Your task to perform on an android device: Open display settings Image 0: 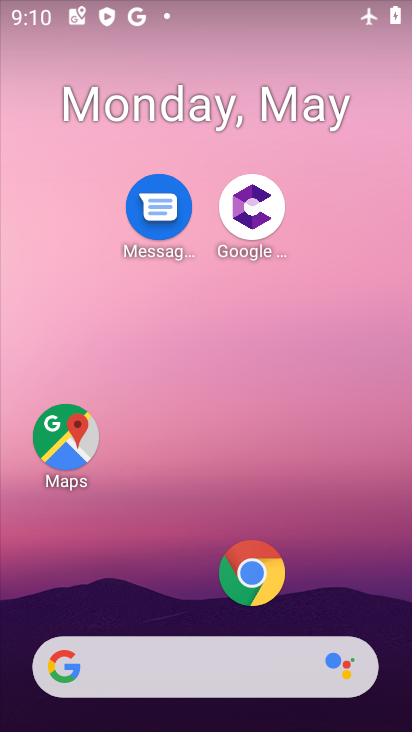
Step 0: drag from (137, 470) to (286, 25)
Your task to perform on an android device: Open display settings Image 1: 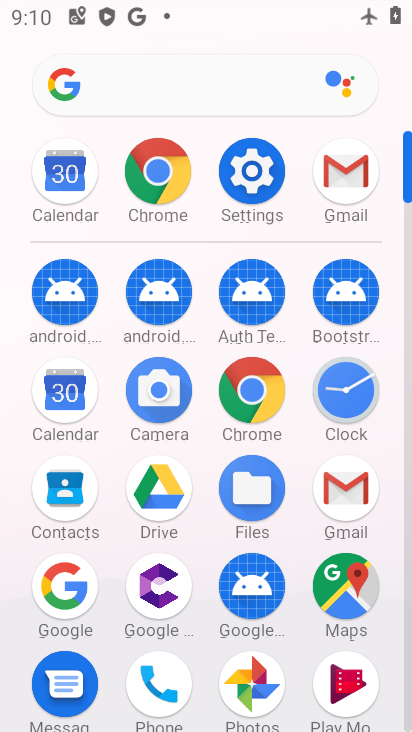
Step 1: click (256, 158)
Your task to perform on an android device: Open display settings Image 2: 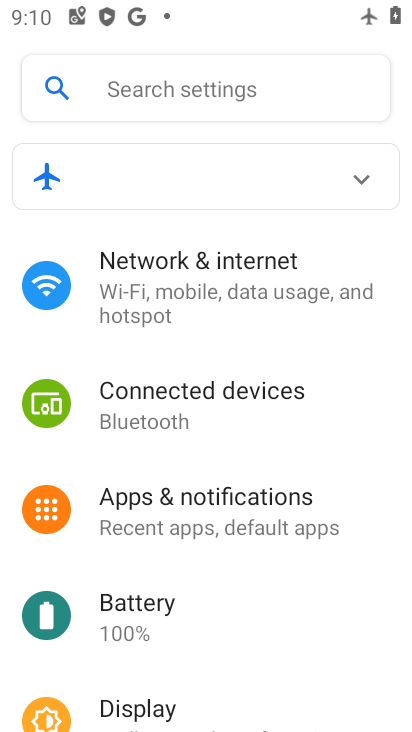
Step 2: click (151, 708)
Your task to perform on an android device: Open display settings Image 3: 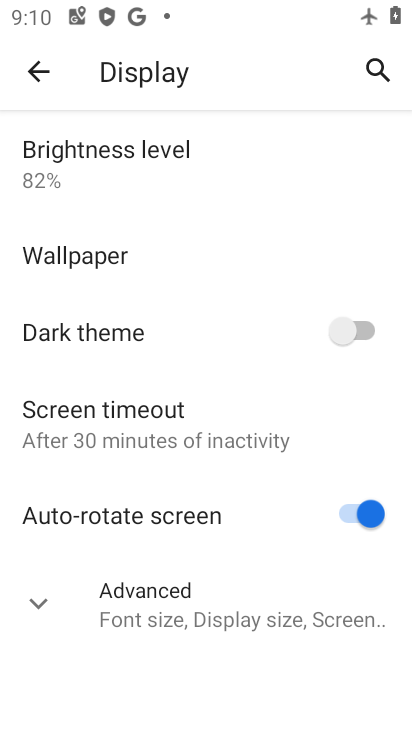
Step 3: click (101, 590)
Your task to perform on an android device: Open display settings Image 4: 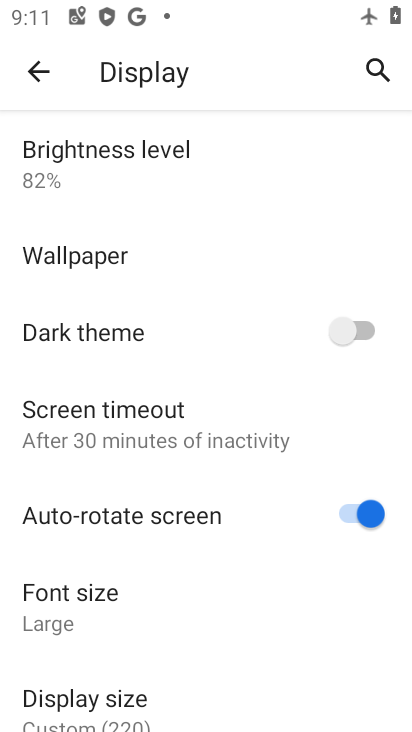
Step 4: task complete